Your task to perform on an android device: check out phone information Image 0: 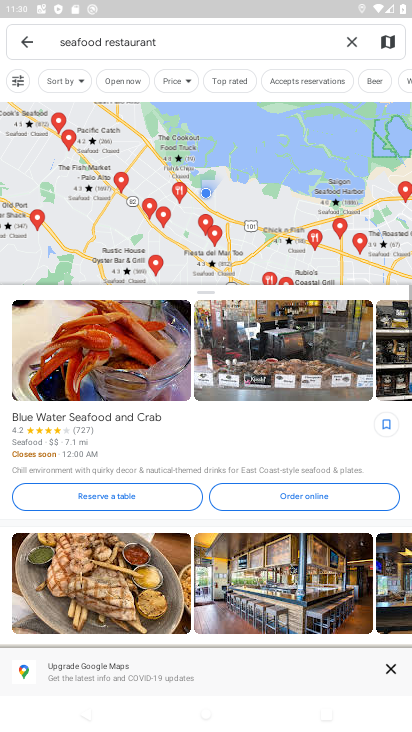
Step 0: press home button
Your task to perform on an android device: check out phone information Image 1: 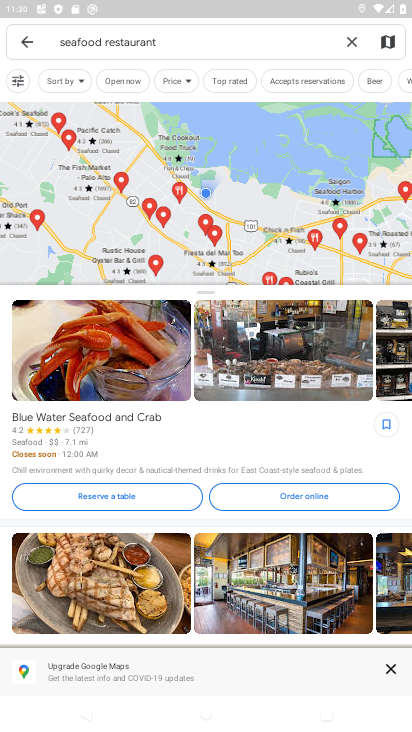
Step 1: press home button
Your task to perform on an android device: check out phone information Image 2: 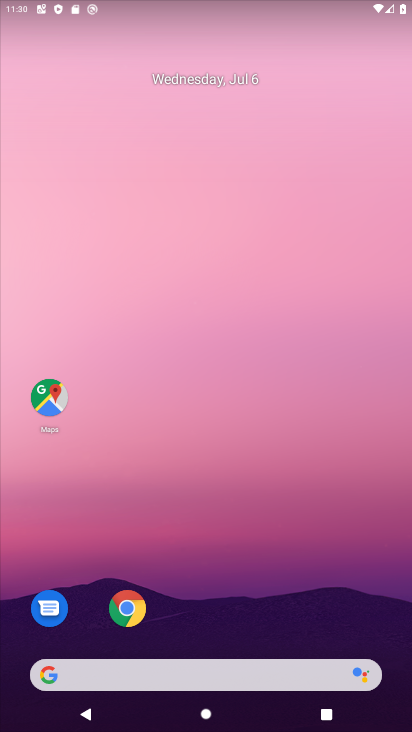
Step 2: drag from (273, 547) to (74, 26)
Your task to perform on an android device: check out phone information Image 3: 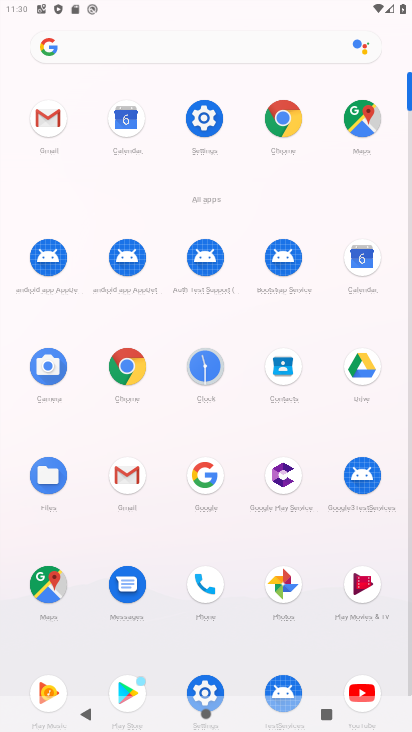
Step 3: click (211, 582)
Your task to perform on an android device: check out phone information Image 4: 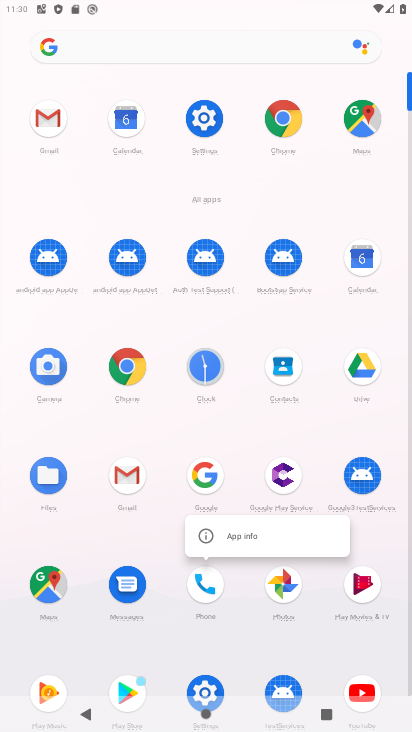
Step 4: click (224, 550)
Your task to perform on an android device: check out phone information Image 5: 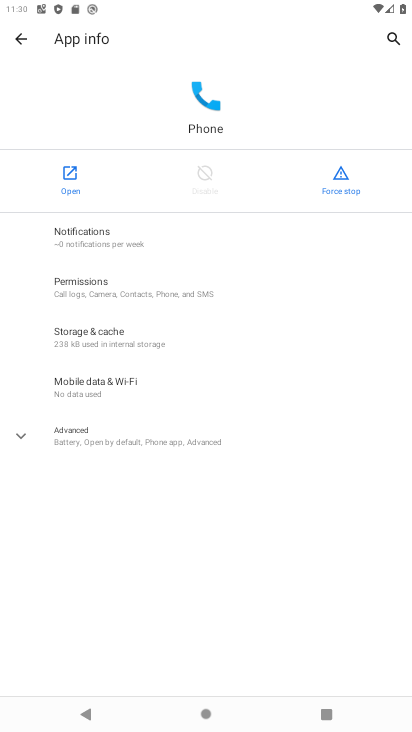
Step 5: task complete